Your task to perform on an android device: Show the shopping cart on costco. Search for "apple airpods" on costco, select the first entry, and add it to the cart. Image 0: 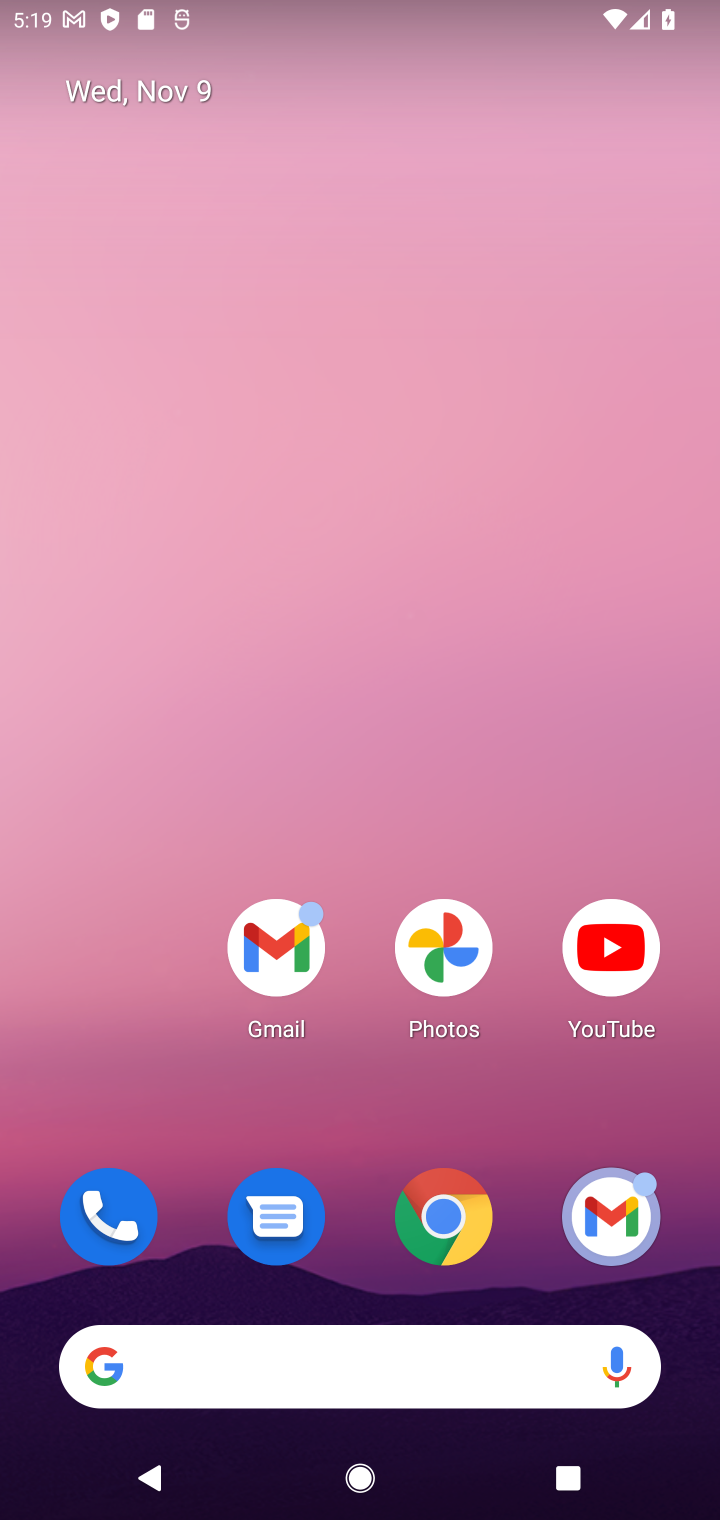
Step 0: drag from (364, 1114) to (426, 182)
Your task to perform on an android device: Show the shopping cart on costco. Search for "apple airpods" on costco, select the first entry, and add it to the cart. Image 1: 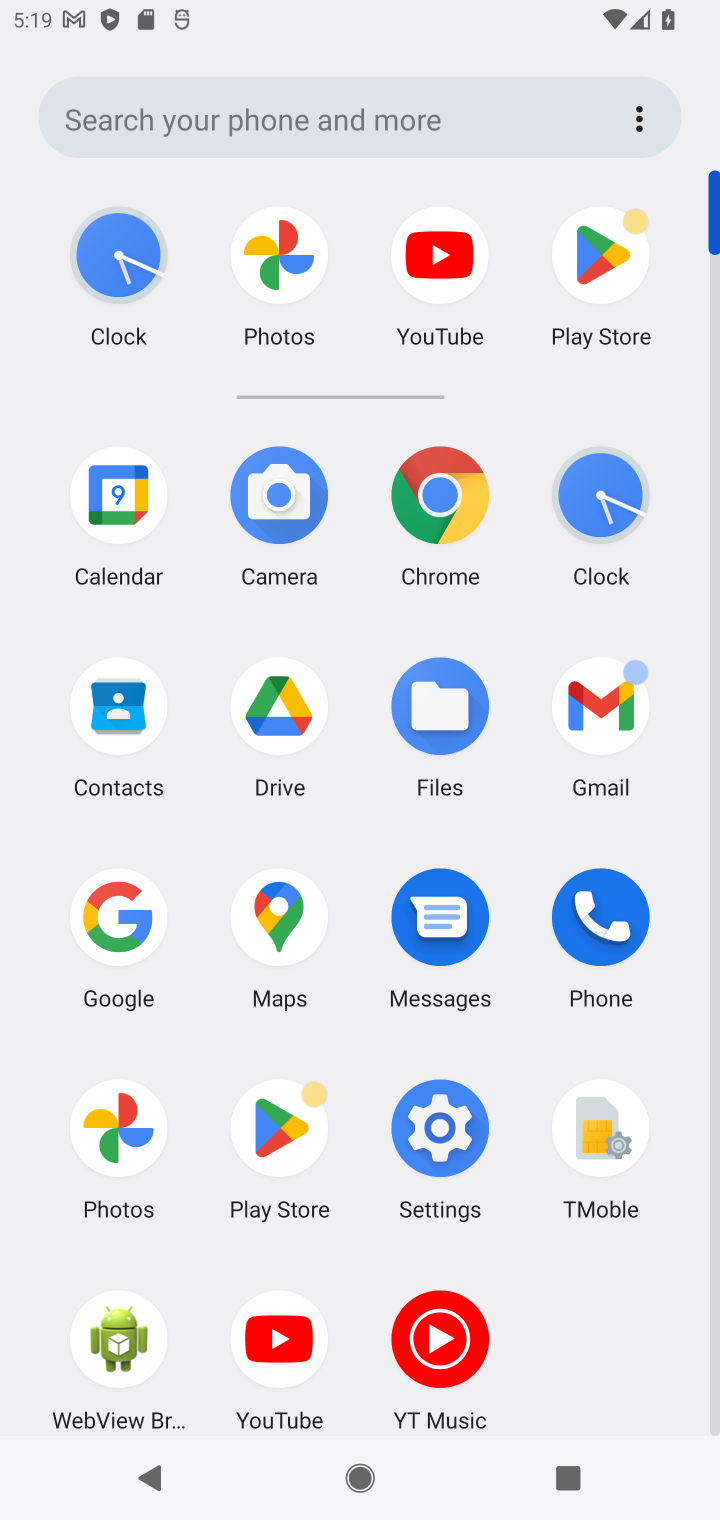
Step 1: click (434, 492)
Your task to perform on an android device: Show the shopping cart on costco. Search for "apple airpods" on costco, select the first entry, and add it to the cart. Image 2: 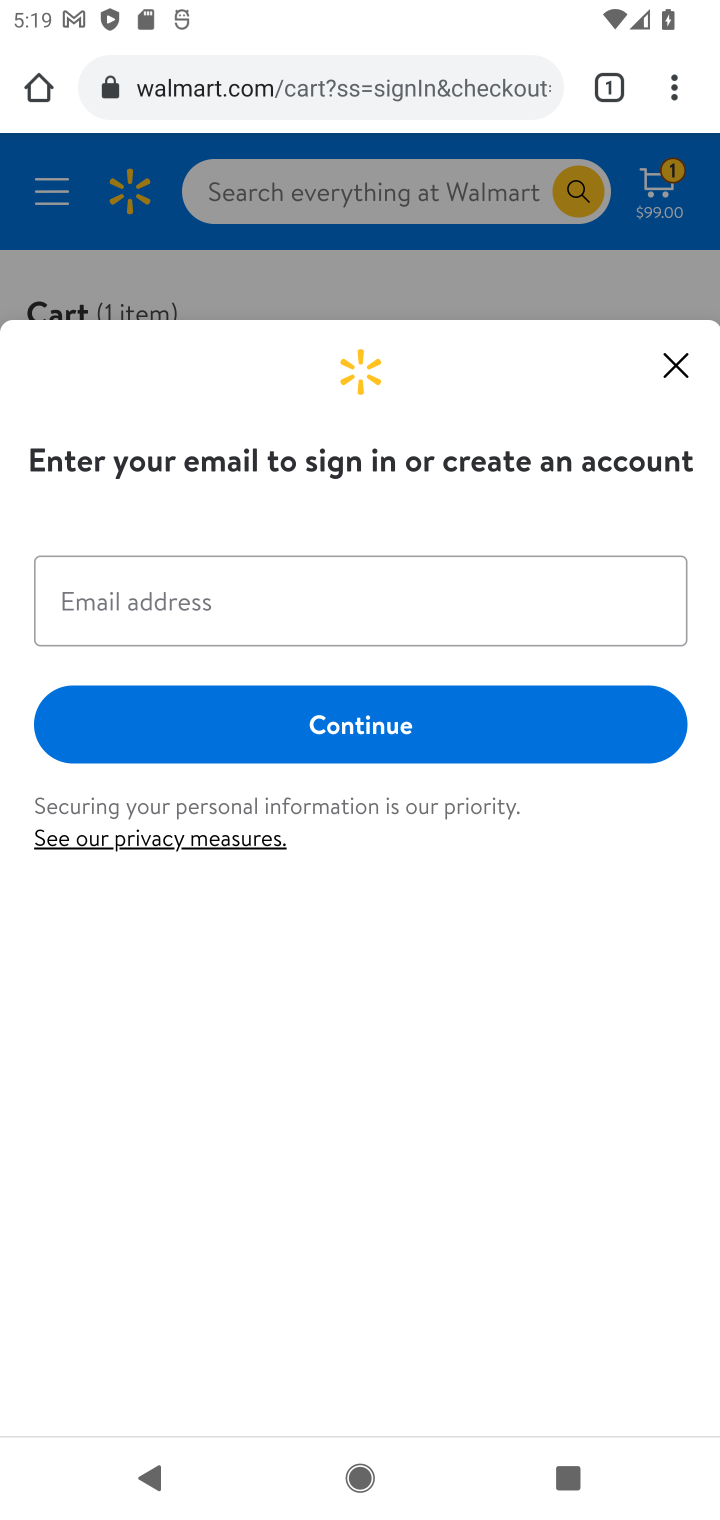
Step 2: click (410, 92)
Your task to perform on an android device: Show the shopping cart on costco. Search for "apple airpods" on costco, select the first entry, and add it to the cart. Image 3: 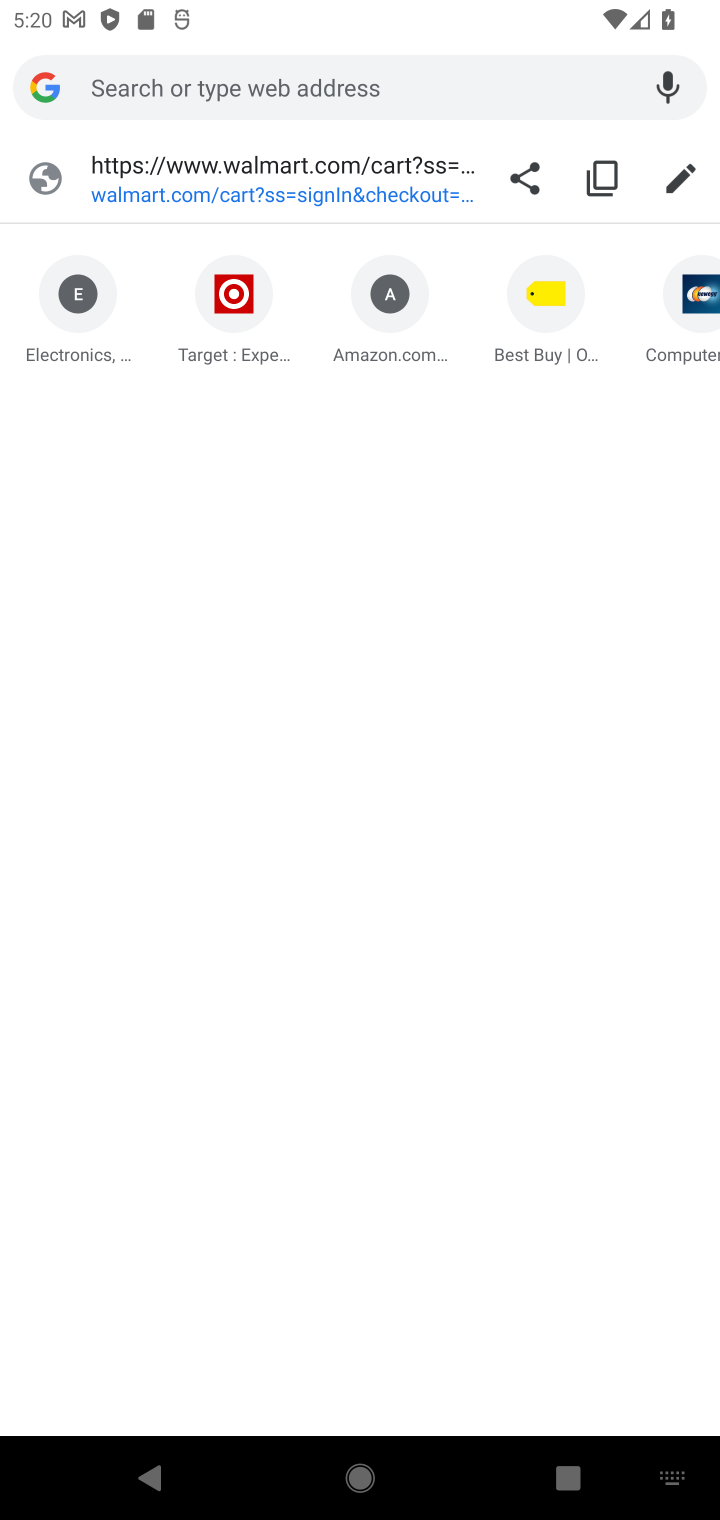
Step 3: type "costco.com"
Your task to perform on an android device: Show the shopping cart on costco. Search for "apple airpods" on costco, select the first entry, and add it to the cart. Image 4: 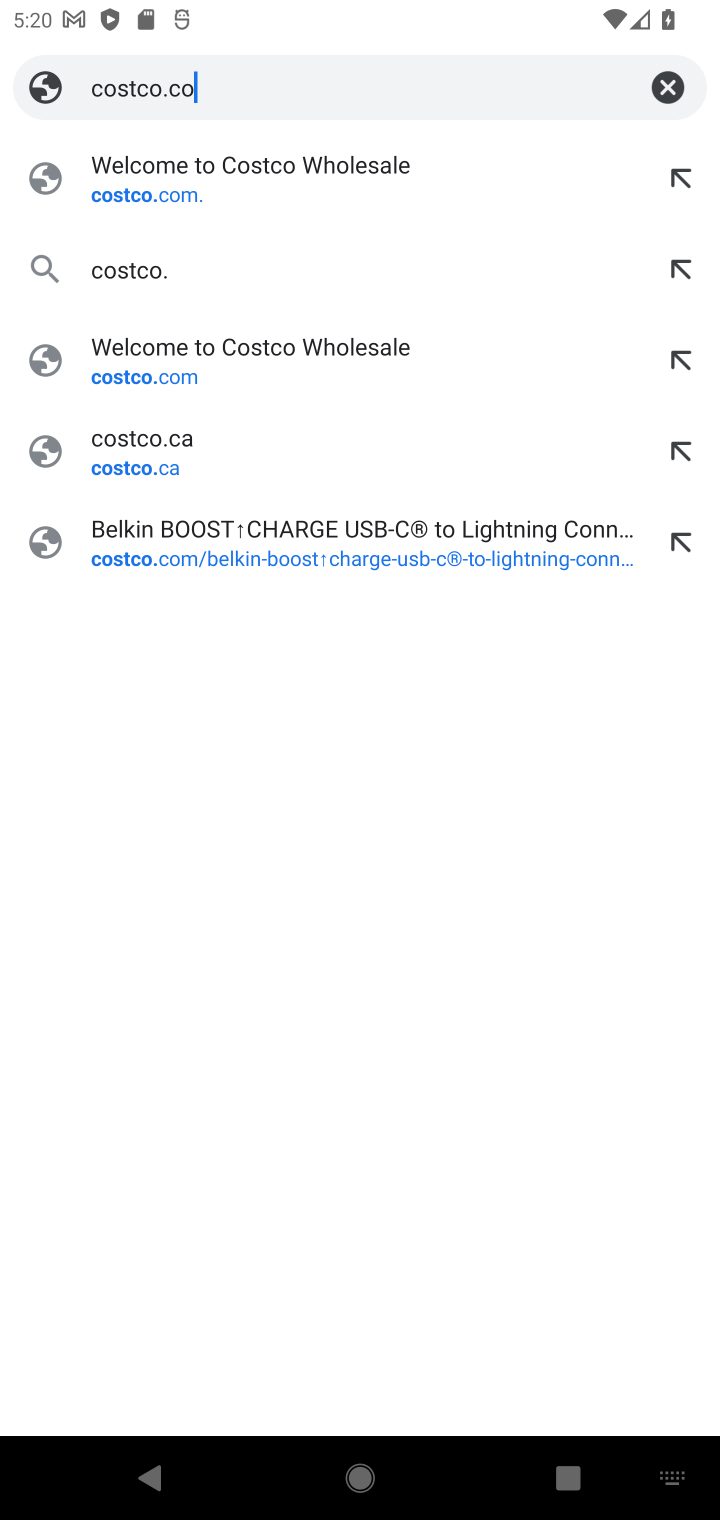
Step 4: press enter
Your task to perform on an android device: Show the shopping cart on costco. Search for "apple airpods" on costco, select the first entry, and add it to the cart. Image 5: 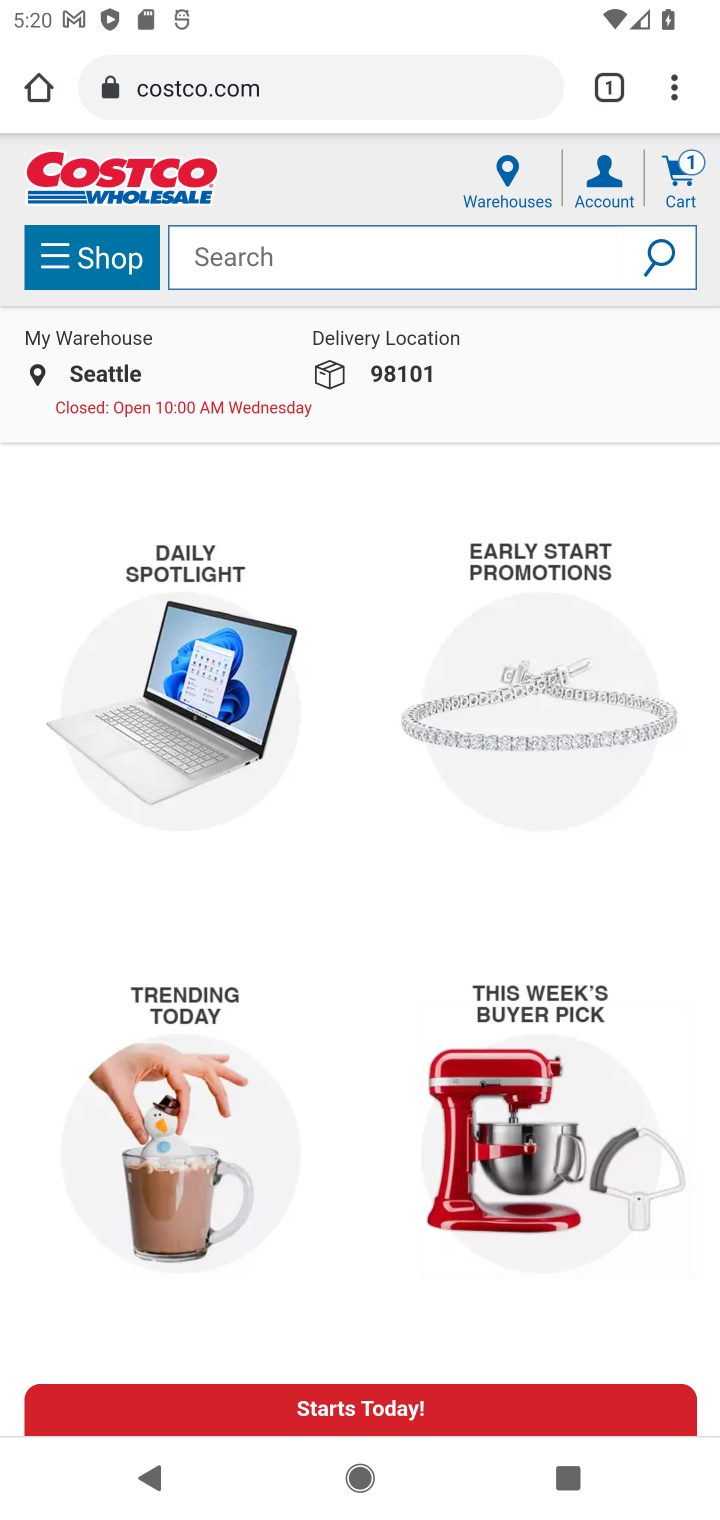
Step 5: click (675, 165)
Your task to perform on an android device: Show the shopping cart on costco. Search for "apple airpods" on costco, select the first entry, and add it to the cart. Image 6: 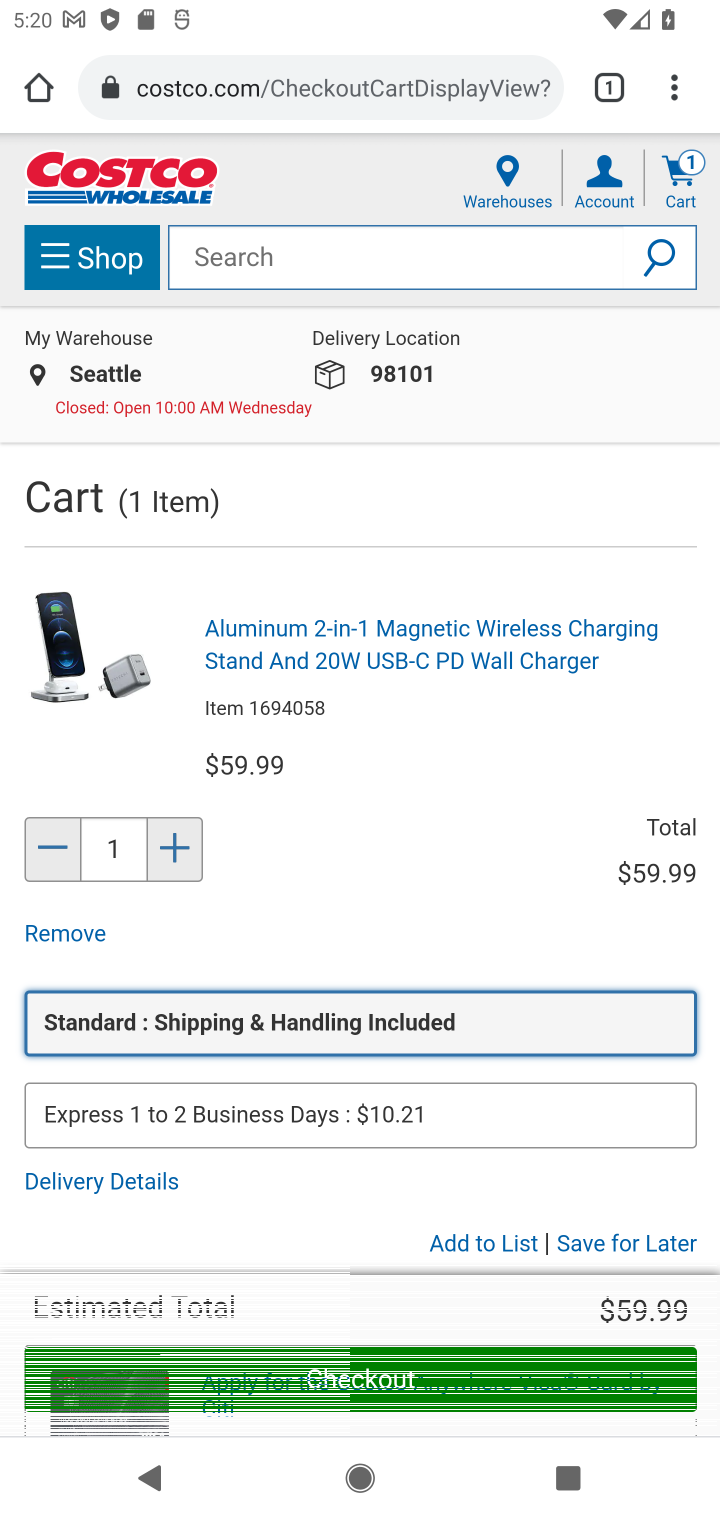
Step 6: click (528, 272)
Your task to perform on an android device: Show the shopping cart on costco. Search for "apple airpods" on costco, select the first entry, and add it to the cart. Image 7: 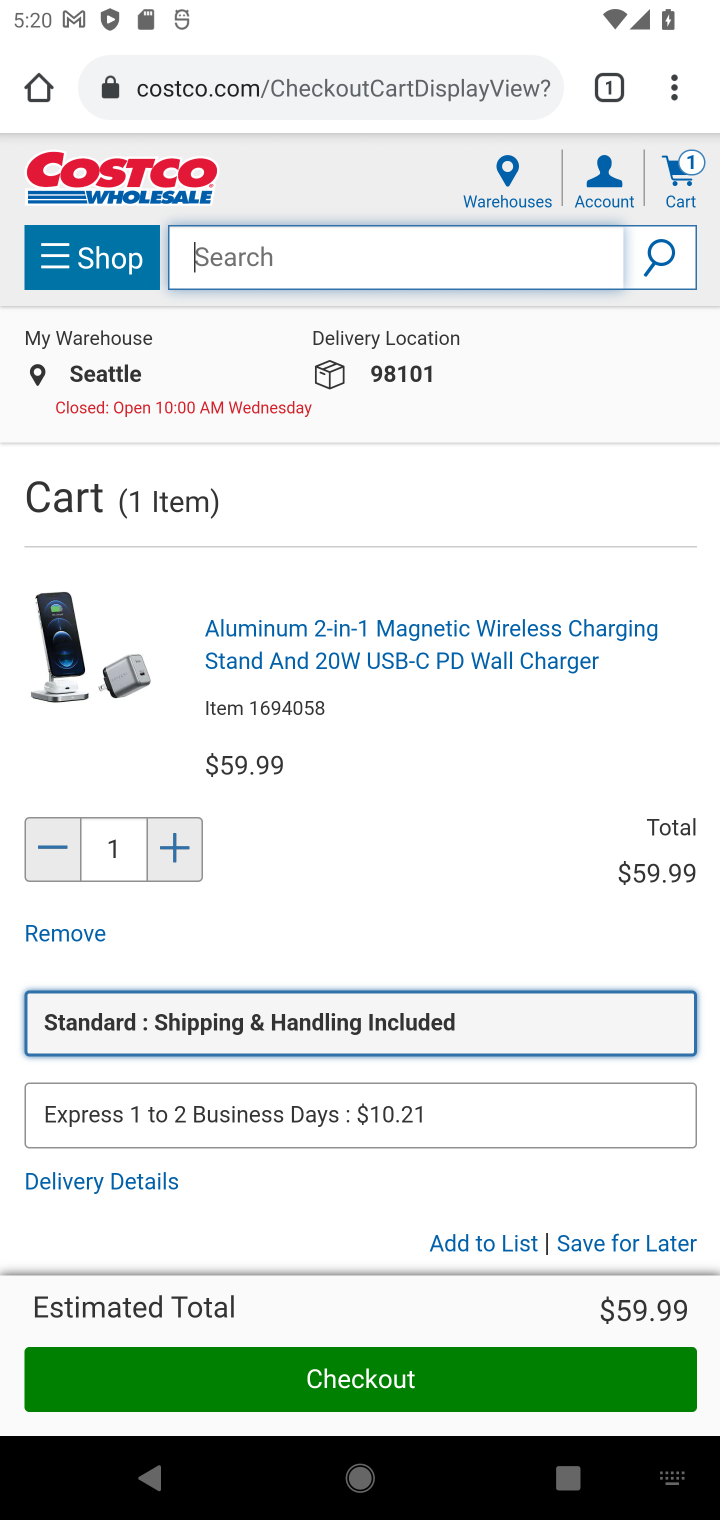
Step 7: type "apple airpods"
Your task to perform on an android device: Show the shopping cart on costco. Search for "apple airpods" on costco, select the first entry, and add it to the cart. Image 8: 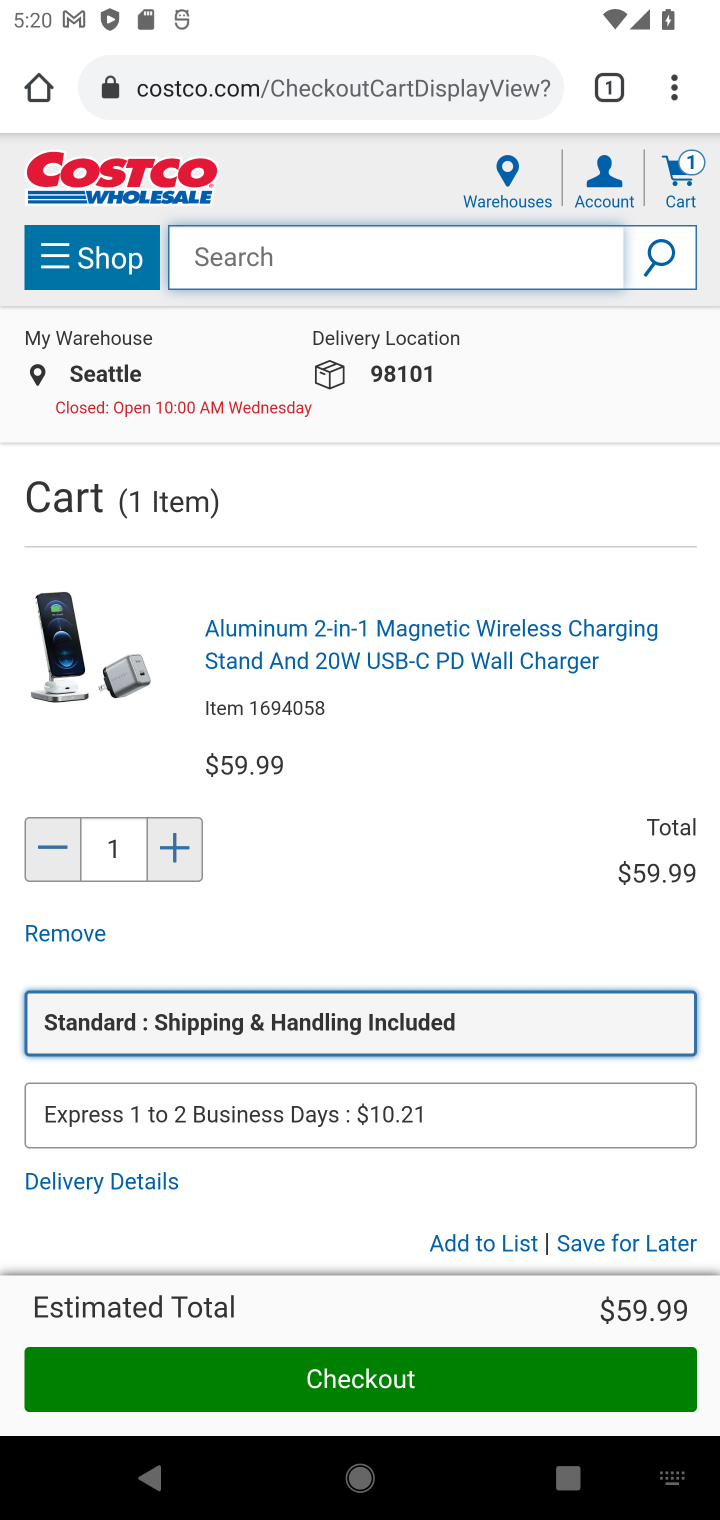
Step 8: press enter
Your task to perform on an android device: Show the shopping cart on costco. Search for "apple airpods" on costco, select the first entry, and add it to the cart. Image 9: 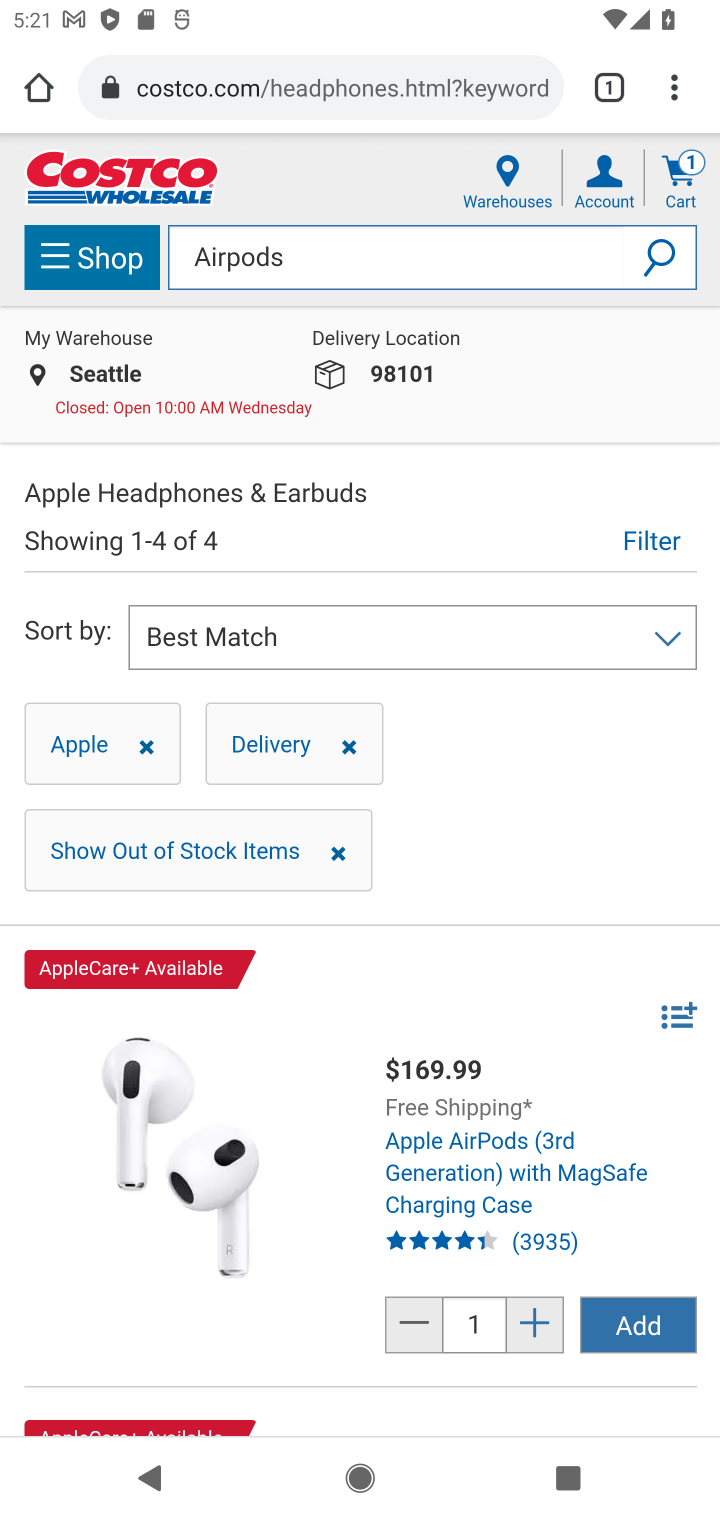
Step 9: drag from (555, 895) to (573, 528)
Your task to perform on an android device: Show the shopping cart on costco. Search for "apple airpods" on costco, select the first entry, and add it to the cart. Image 10: 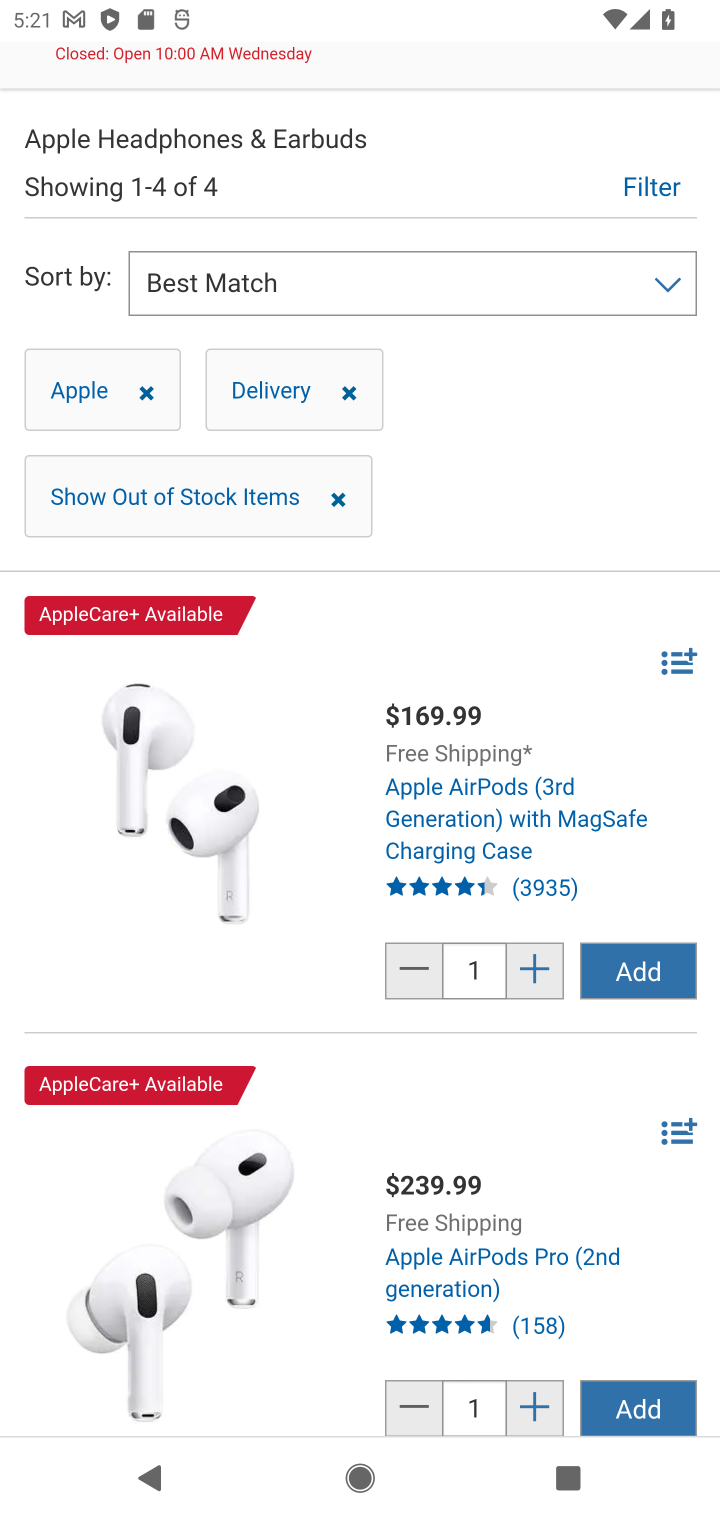
Step 10: click (644, 964)
Your task to perform on an android device: Show the shopping cart on costco. Search for "apple airpods" on costco, select the first entry, and add it to the cart. Image 11: 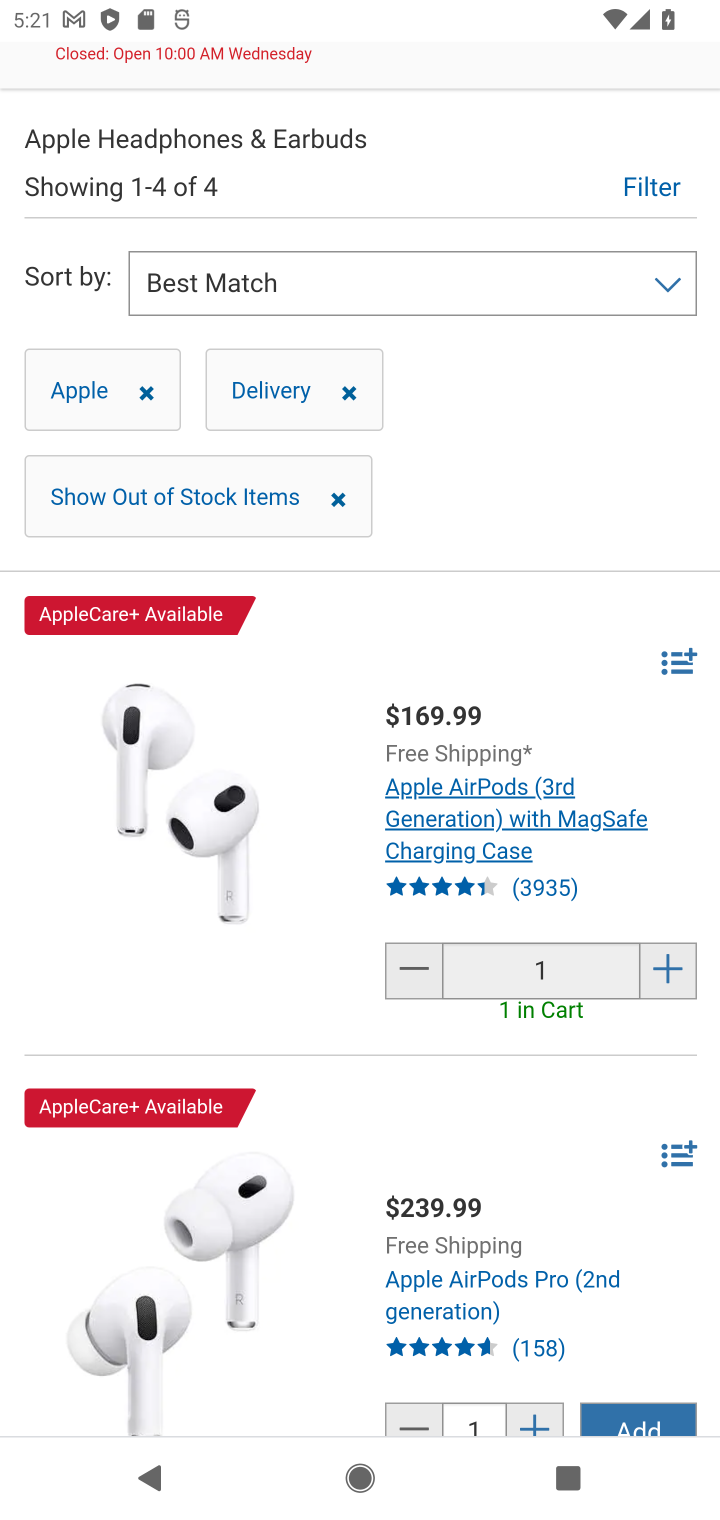
Step 11: task complete